Your task to perform on an android device: Open privacy settings Image 0: 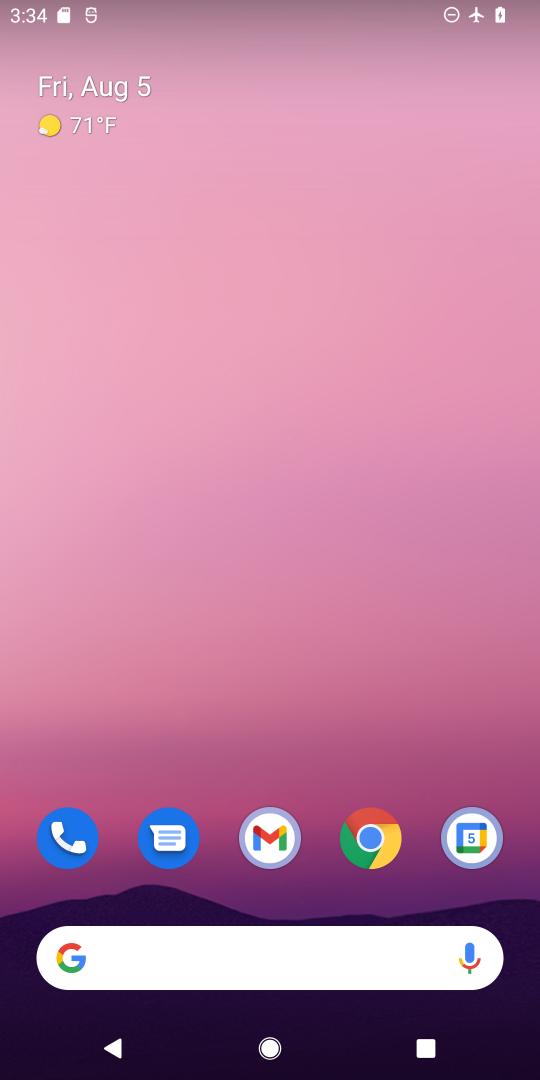
Step 0: drag from (427, 804) to (314, 114)
Your task to perform on an android device: Open privacy settings Image 1: 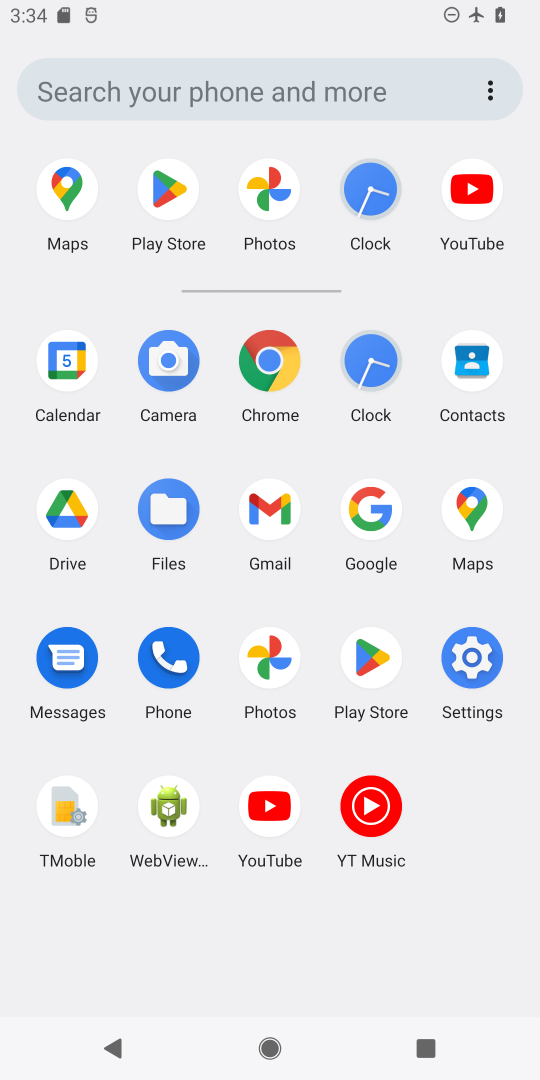
Step 1: click (476, 669)
Your task to perform on an android device: Open privacy settings Image 2: 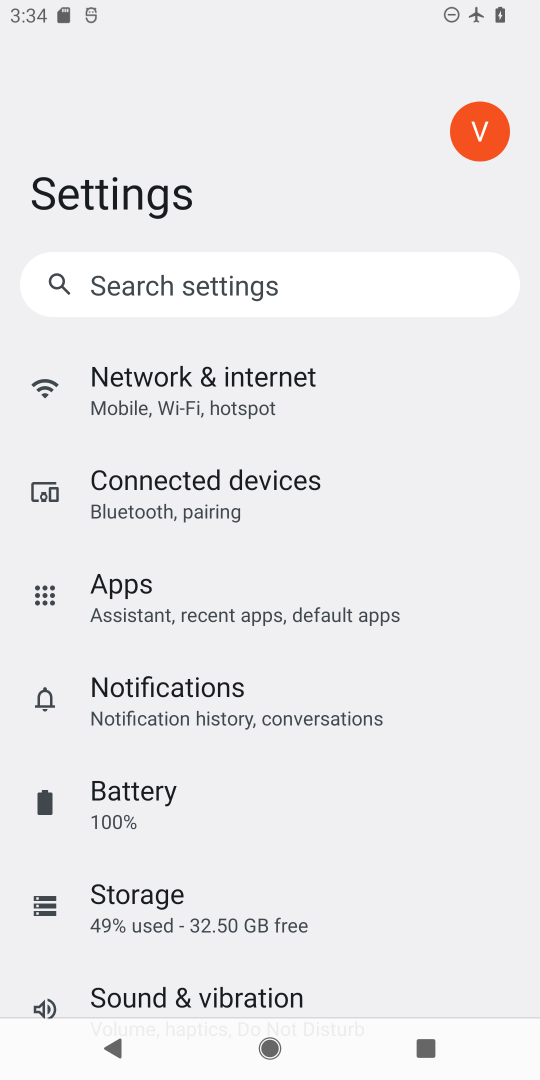
Step 2: drag from (323, 893) to (256, 361)
Your task to perform on an android device: Open privacy settings Image 3: 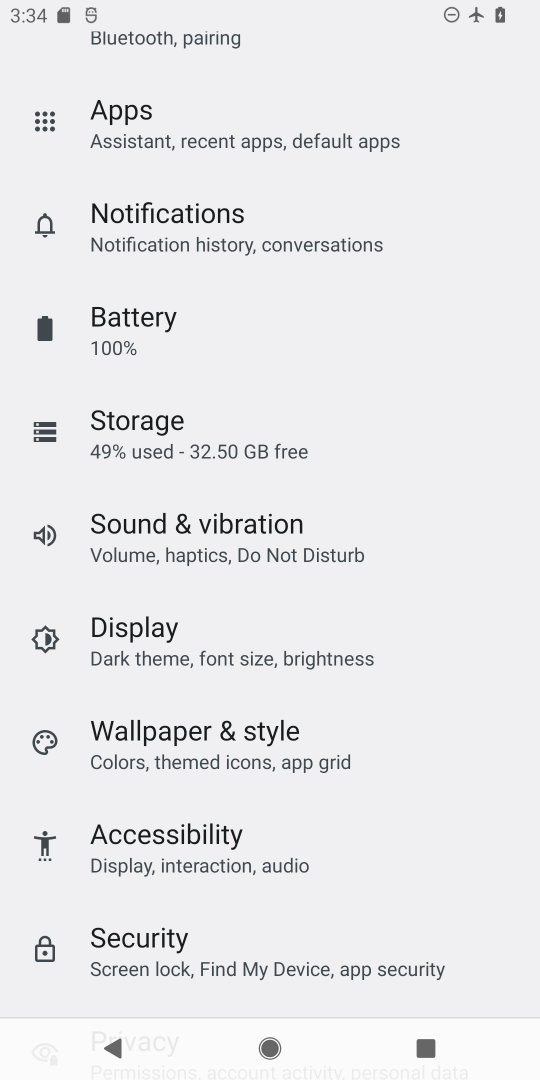
Step 3: drag from (285, 917) to (288, 446)
Your task to perform on an android device: Open privacy settings Image 4: 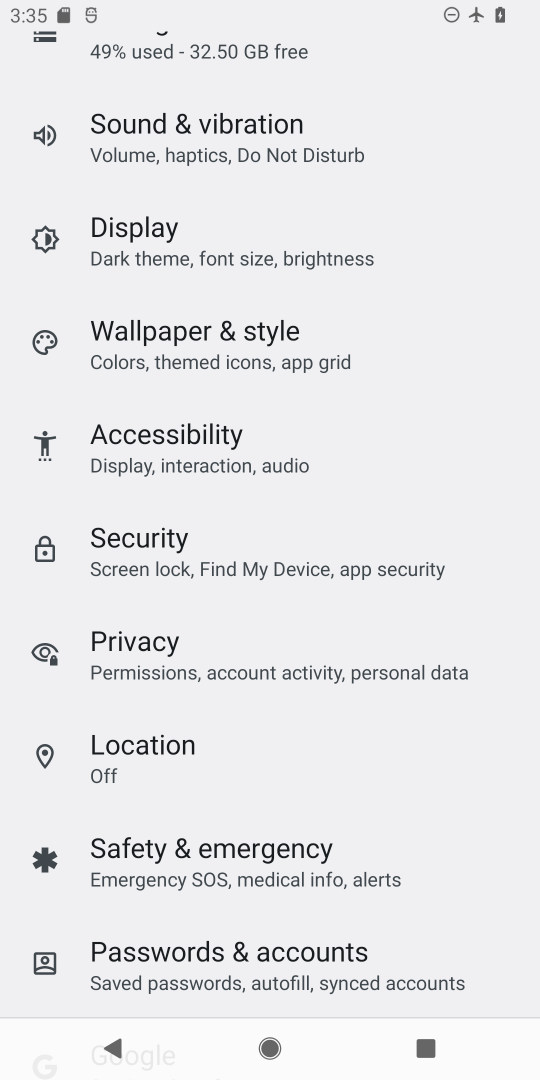
Step 4: click (308, 655)
Your task to perform on an android device: Open privacy settings Image 5: 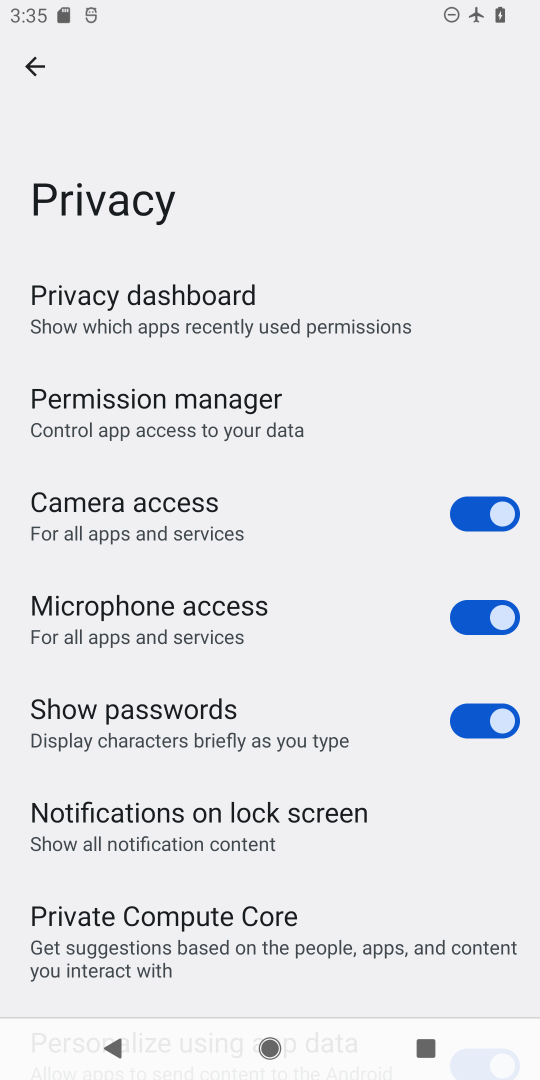
Step 5: task complete